Your task to perform on an android device: When is my next meeting? Image 0: 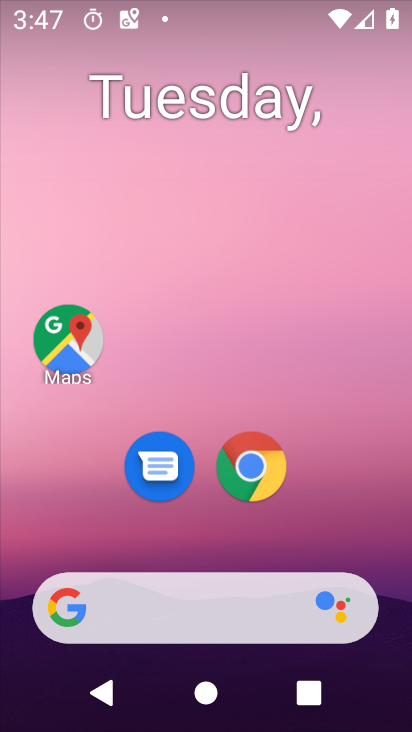
Step 0: drag from (379, 539) to (371, 159)
Your task to perform on an android device: When is my next meeting? Image 1: 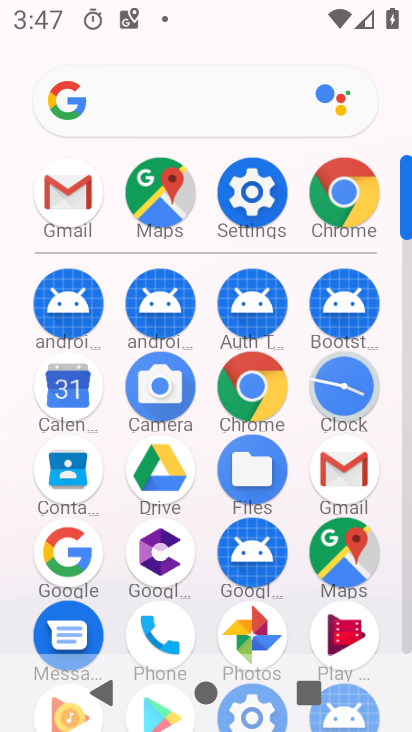
Step 1: click (78, 390)
Your task to perform on an android device: When is my next meeting? Image 2: 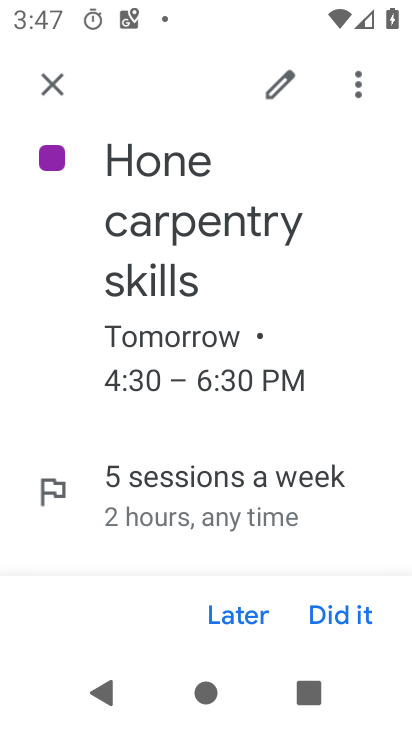
Step 2: task complete